Your task to perform on an android device: Open privacy settings Image 0: 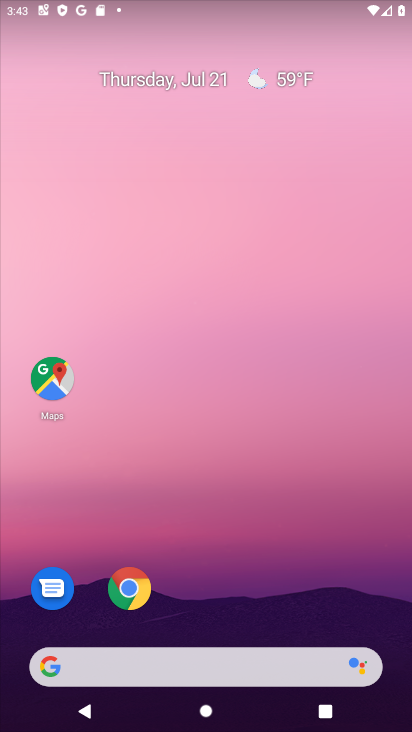
Step 0: drag from (229, 701) to (206, 199)
Your task to perform on an android device: Open privacy settings Image 1: 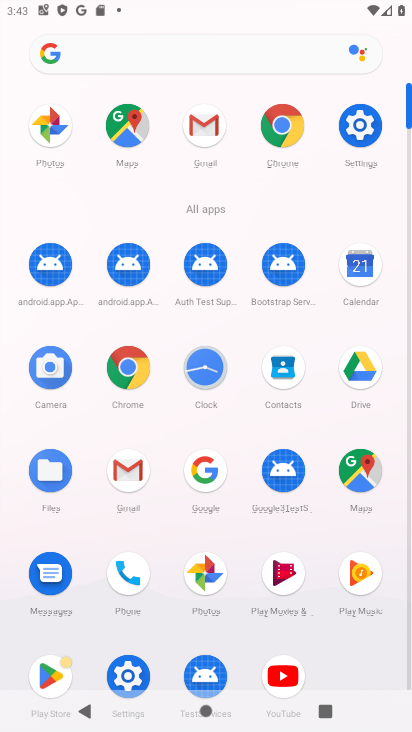
Step 1: click (361, 120)
Your task to perform on an android device: Open privacy settings Image 2: 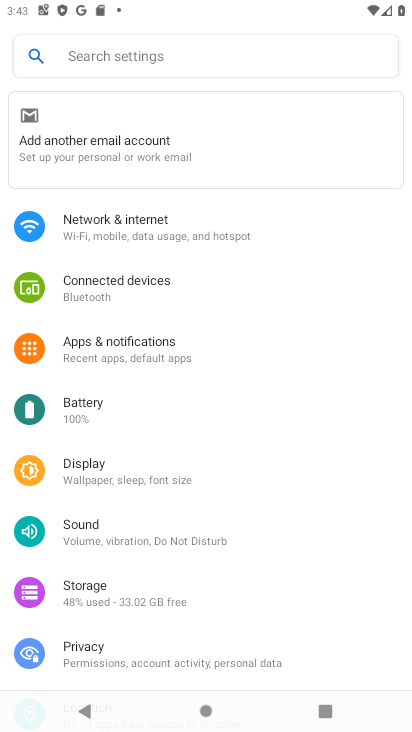
Step 2: click (97, 652)
Your task to perform on an android device: Open privacy settings Image 3: 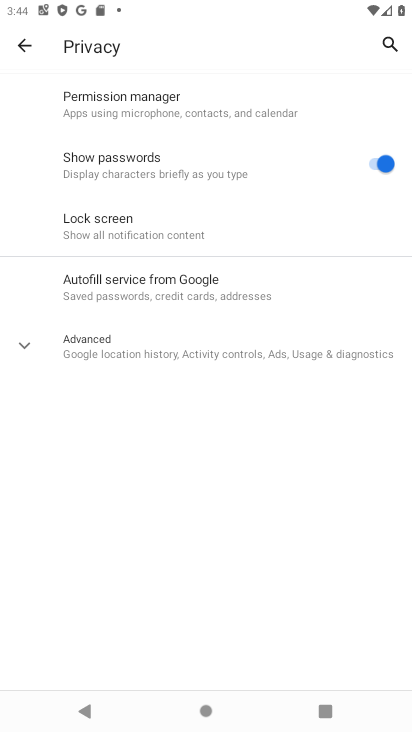
Step 3: task complete